Your task to perform on an android device: change timer sound Image 0: 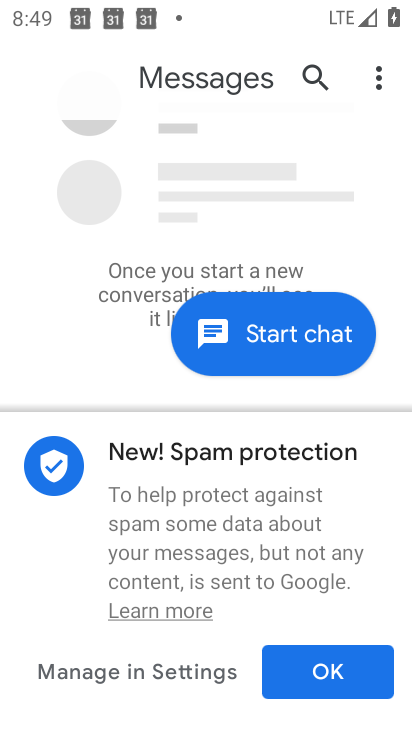
Step 0: press home button
Your task to perform on an android device: change timer sound Image 1: 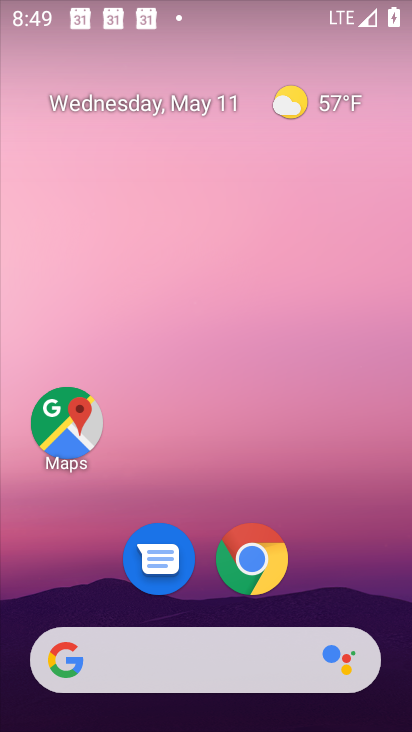
Step 1: drag from (325, 586) to (317, 31)
Your task to perform on an android device: change timer sound Image 2: 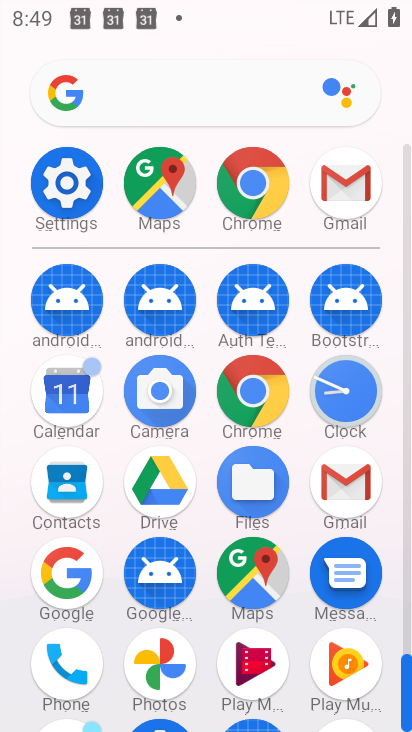
Step 2: click (347, 389)
Your task to perform on an android device: change timer sound Image 3: 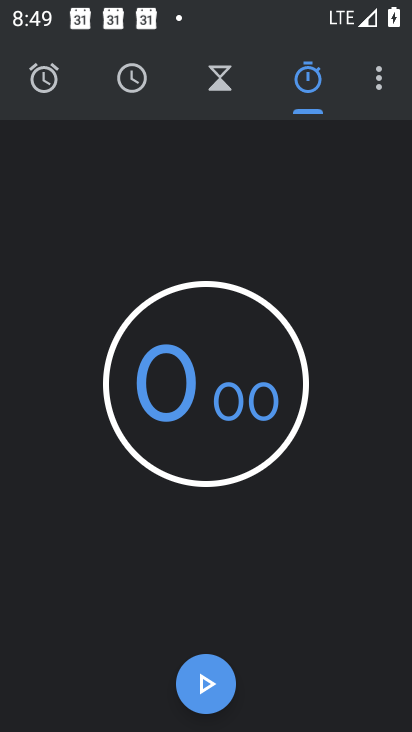
Step 3: click (377, 92)
Your task to perform on an android device: change timer sound Image 4: 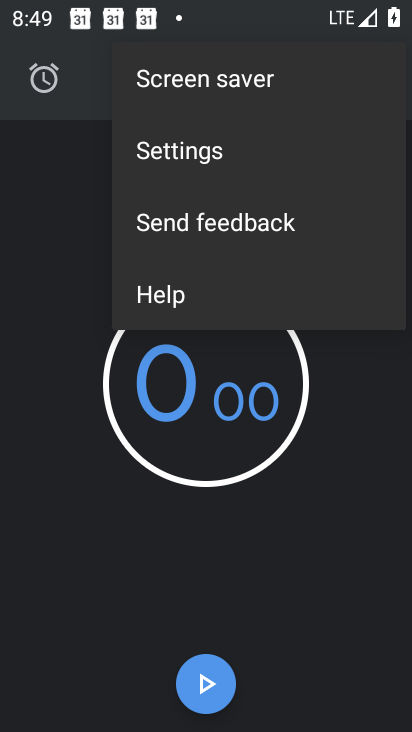
Step 4: click (180, 160)
Your task to perform on an android device: change timer sound Image 5: 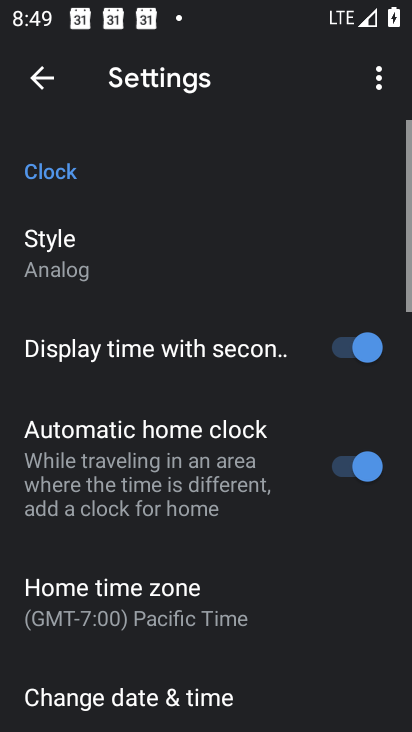
Step 5: drag from (198, 558) to (185, 174)
Your task to perform on an android device: change timer sound Image 6: 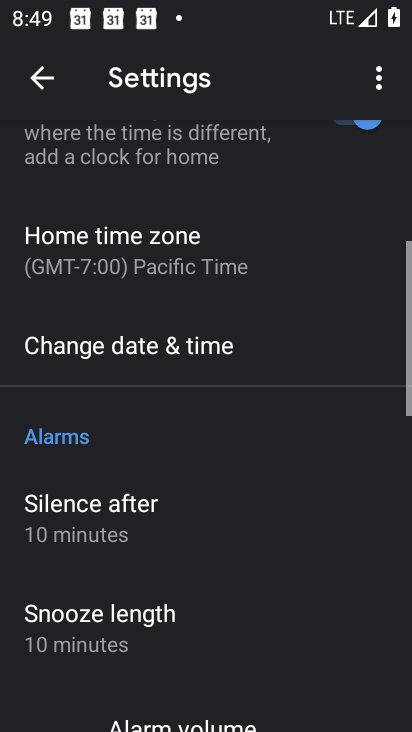
Step 6: drag from (219, 564) to (213, 194)
Your task to perform on an android device: change timer sound Image 7: 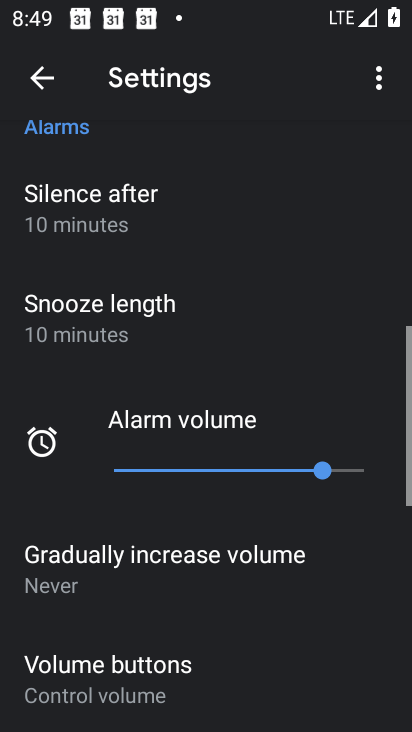
Step 7: drag from (261, 590) to (257, 244)
Your task to perform on an android device: change timer sound Image 8: 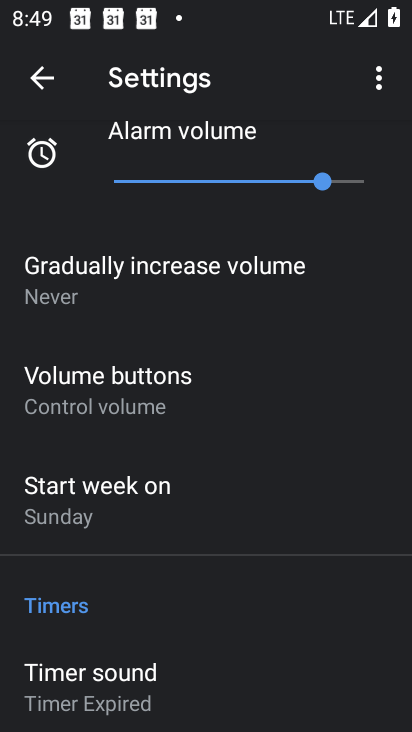
Step 8: drag from (269, 587) to (274, 424)
Your task to perform on an android device: change timer sound Image 9: 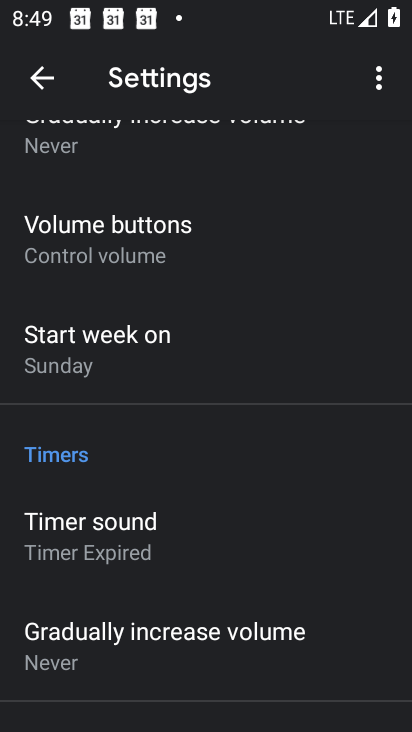
Step 9: click (131, 510)
Your task to perform on an android device: change timer sound Image 10: 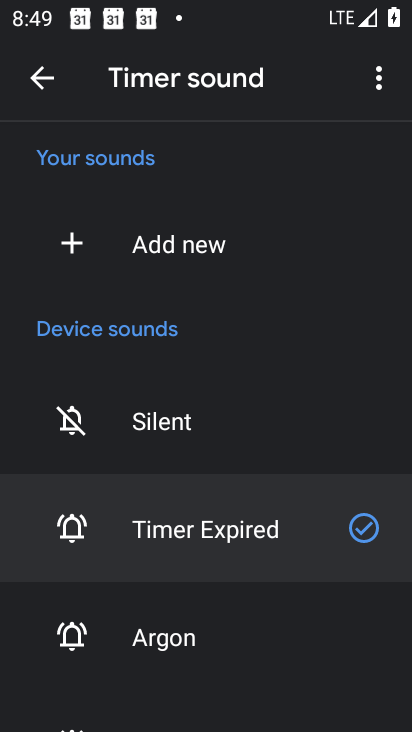
Step 10: click (163, 626)
Your task to perform on an android device: change timer sound Image 11: 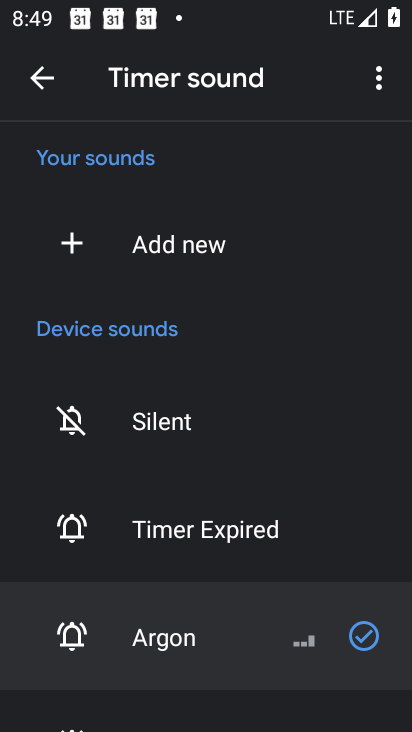
Step 11: task complete